Your task to perform on an android device: Search for Mexican restaurants on Maps Image 0: 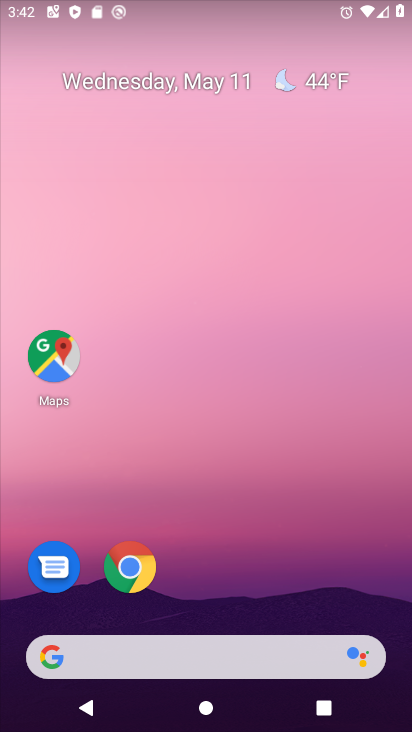
Step 0: drag from (239, 510) to (177, 6)
Your task to perform on an android device: Search for Mexican restaurants on Maps Image 1: 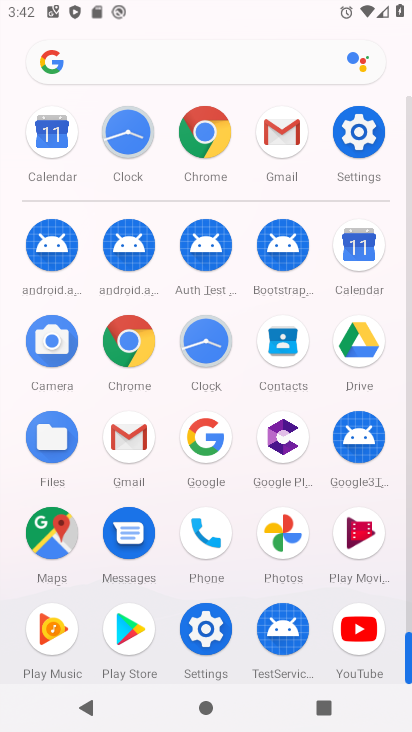
Step 1: drag from (6, 582) to (0, 196)
Your task to perform on an android device: Search for Mexican restaurants on Maps Image 2: 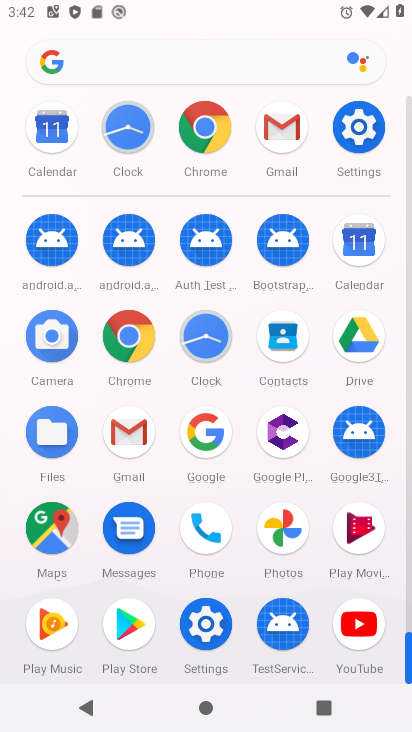
Step 2: click (40, 521)
Your task to perform on an android device: Search for Mexican restaurants on Maps Image 3: 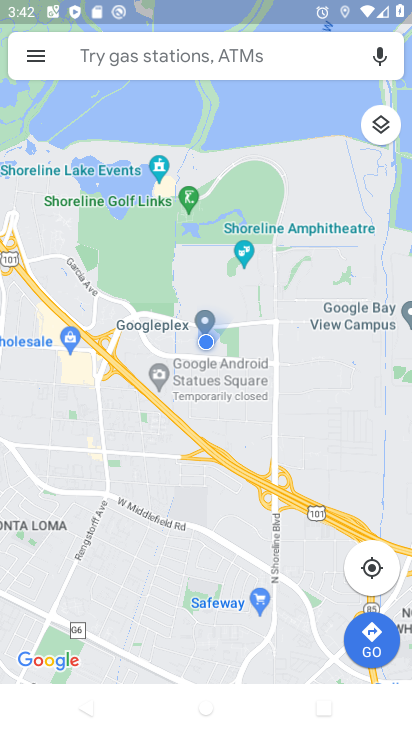
Step 3: click (270, 43)
Your task to perform on an android device: Search for Mexican restaurants on Maps Image 4: 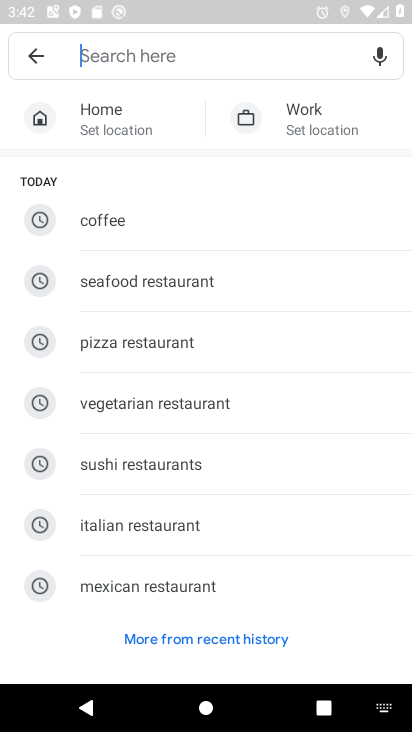
Step 4: click (135, 597)
Your task to perform on an android device: Search for Mexican restaurants on Maps Image 5: 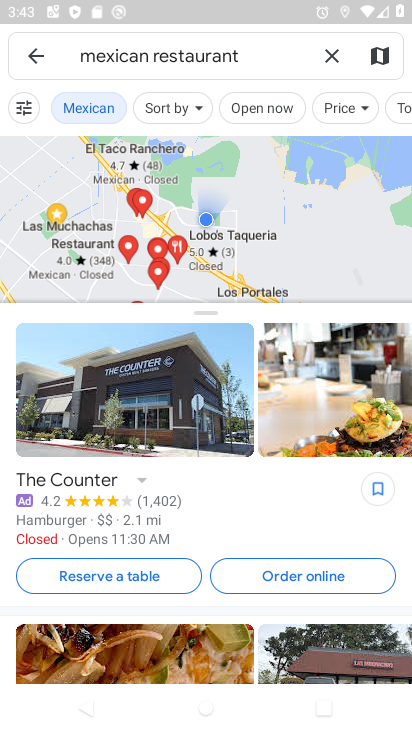
Step 5: task complete